Your task to perform on an android device: Open Chrome and go to settings Image 0: 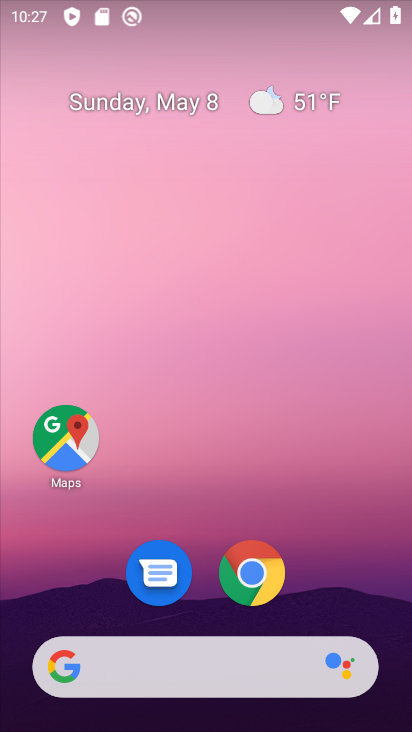
Step 0: drag from (188, 639) to (243, 126)
Your task to perform on an android device: Open Chrome and go to settings Image 1: 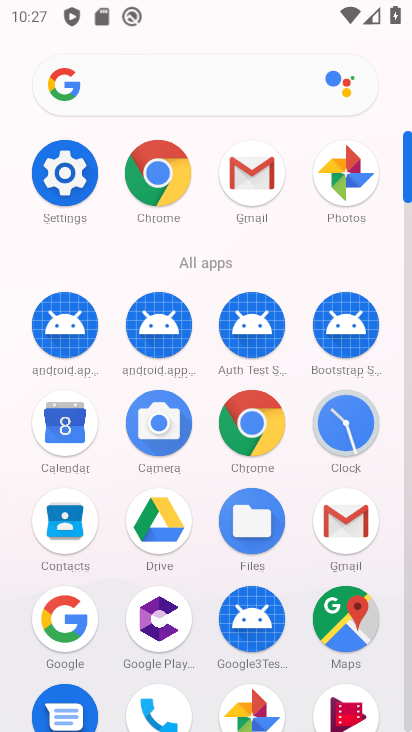
Step 1: click (63, 176)
Your task to perform on an android device: Open Chrome and go to settings Image 2: 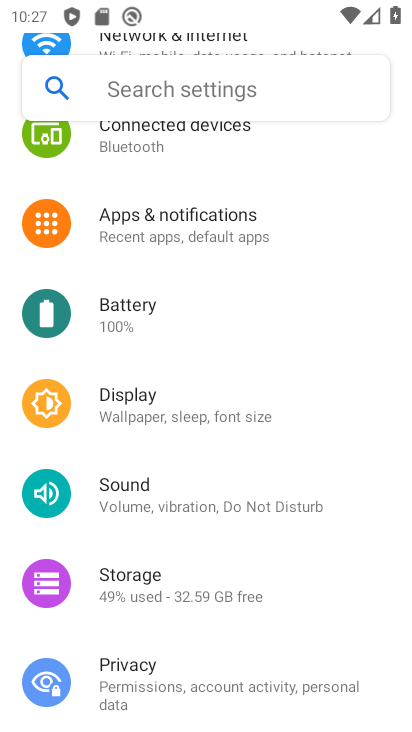
Step 2: press back button
Your task to perform on an android device: Open Chrome and go to settings Image 3: 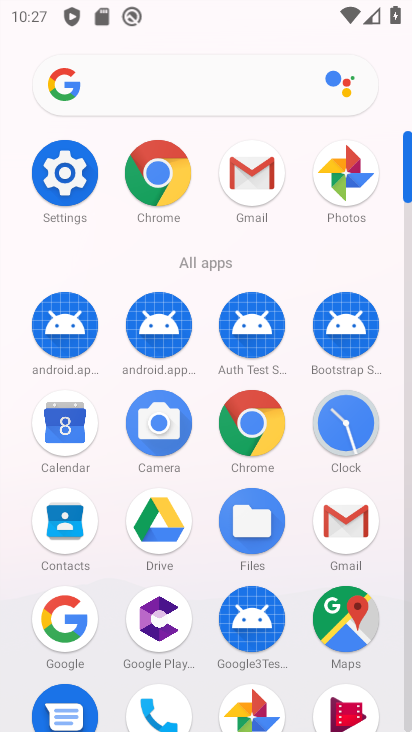
Step 3: click (170, 174)
Your task to perform on an android device: Open Chrome and go to settings Image 4: 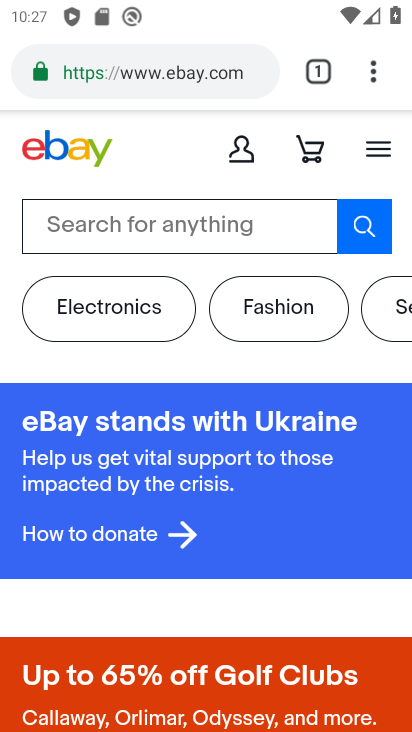
Step 4: click (370, 77)
Your task to perform on an android device: Open Chrome and go to settings Image 5: 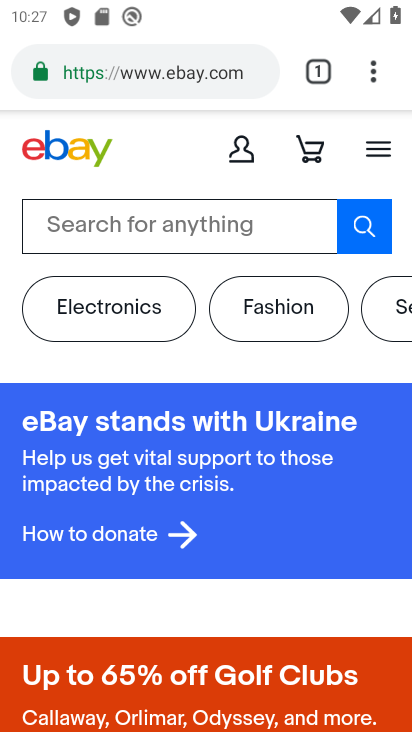
Step 5: click (370, 77)
Your task to perform on an android device: Open Chrome and go to settings Image 6: 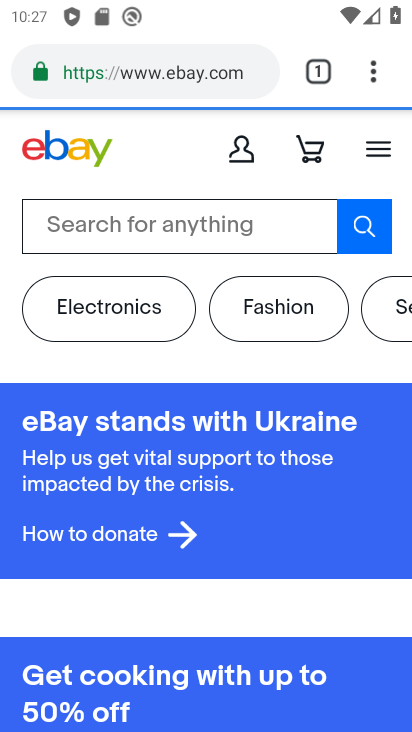
Step 6: click (373, 73)
Your task to perform on an android device: Open Chrome and go to settings Image 7: 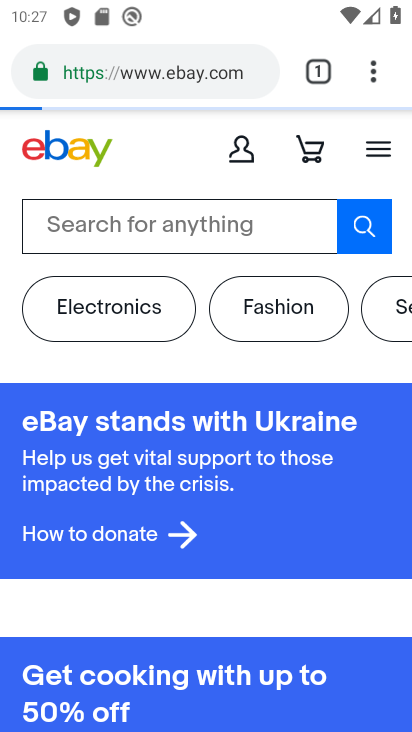
Step 7: click (373, 73)
Your task to perform on an android device: Open Chrome and go to settings Image 8: 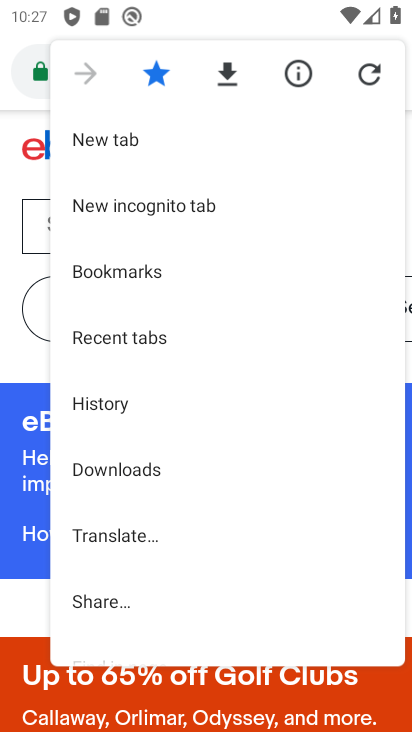
Step 8: drag from (121, 612) to (104, 332)
Your task to perform on an android device: Open Chrome and go to settings Image 9: 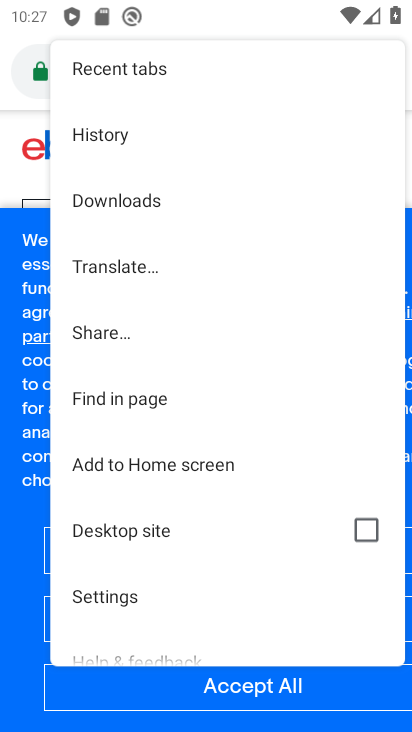
Step 9: click (121, 603)
Your task to perform on an android device: Open Chrome and go to settings Image 10: 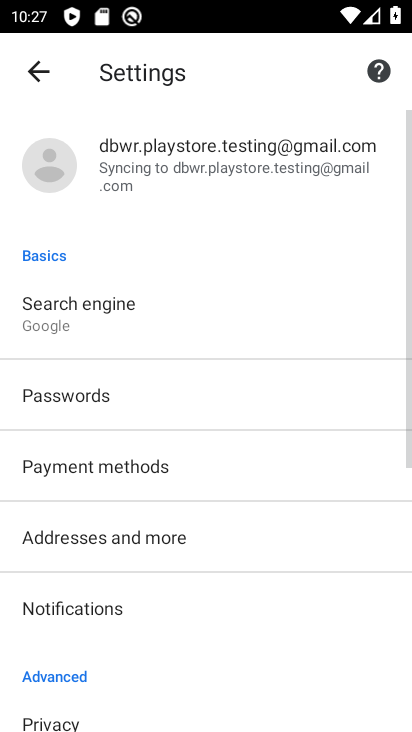
Step 10: task complete